Your task to perform on an android device: Open Chrome and go to the settings page Image 0: 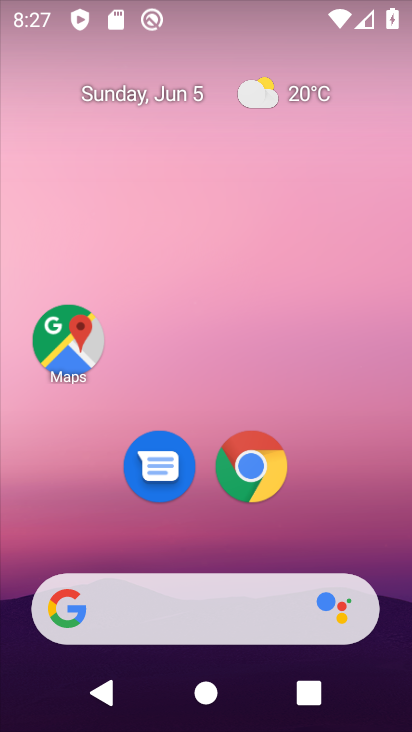
Step 0: click (248, 469)
Your task to perform on an android device: Open Chrome and go to the settings page Image 1: 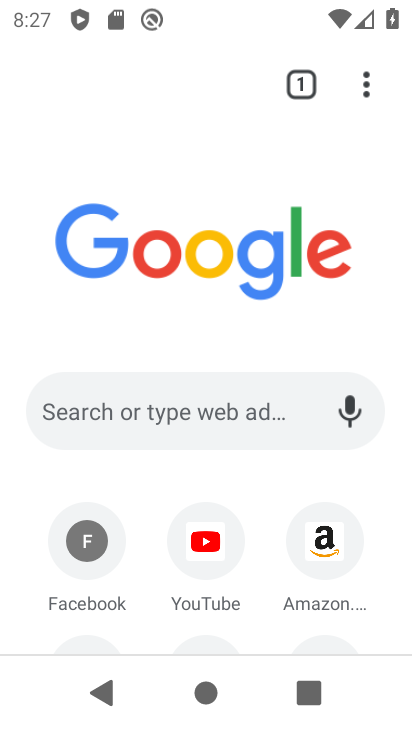
Step 1: click (363, 92)
Your task to perform on an android device: Open Chrome and go to the settings page Image 2: 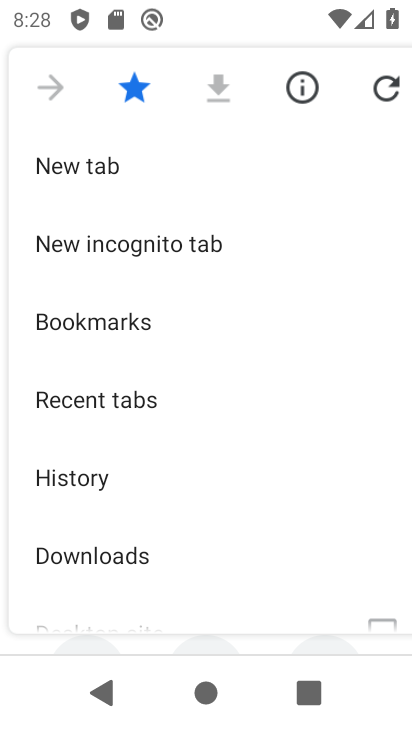
Step 2: drag from (107, 529) to (82, 315)
Your task to perform on an android device: Open Chrome and go to the settings page Image 3: 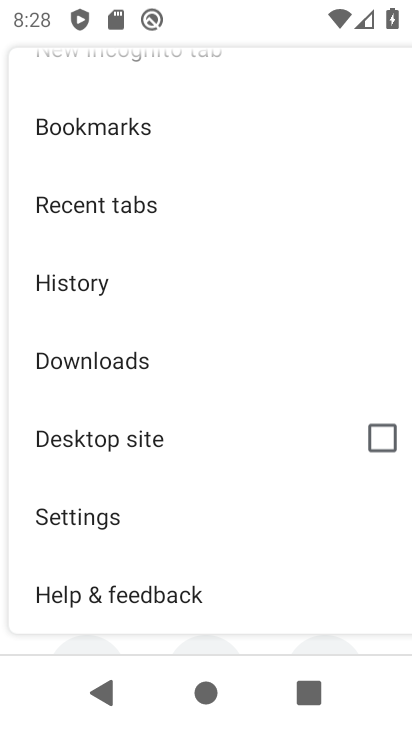
Step 3: click (83, 528)
Your task to perform on an android device: Open Chrome and go to the settings page Image 4: 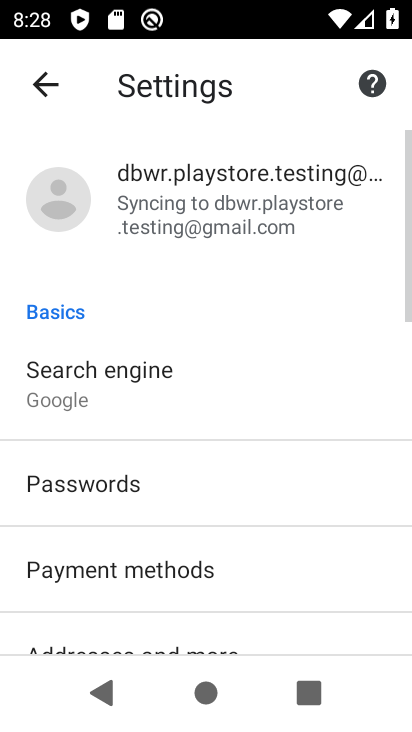
Step 4: task complete